Your task to perform on an android device: Clear the shopping cart on newegg.com. Image 0: 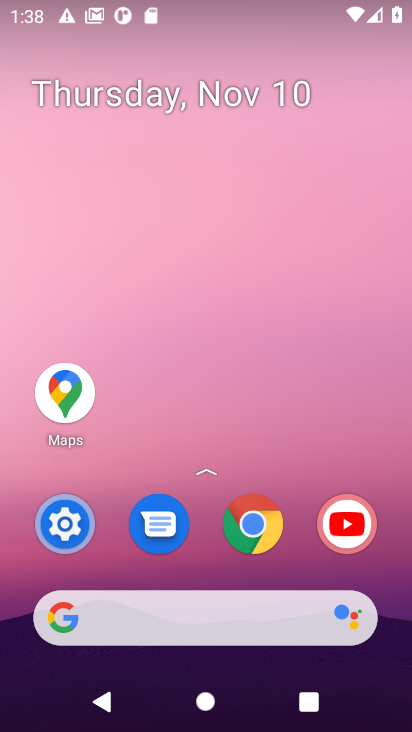
Step 0: click (295, 529)
Your task to perform on an android device: Clear the shopping cart on newegg.com. Image 1: 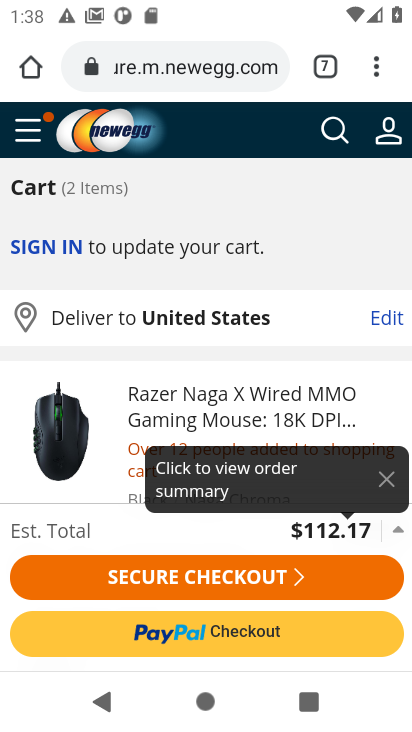
Step 1: drag from (119, 467) to (164, 225)
Your task to perform on an android device: Clear the shopping cart on newegg.com. Image 2: 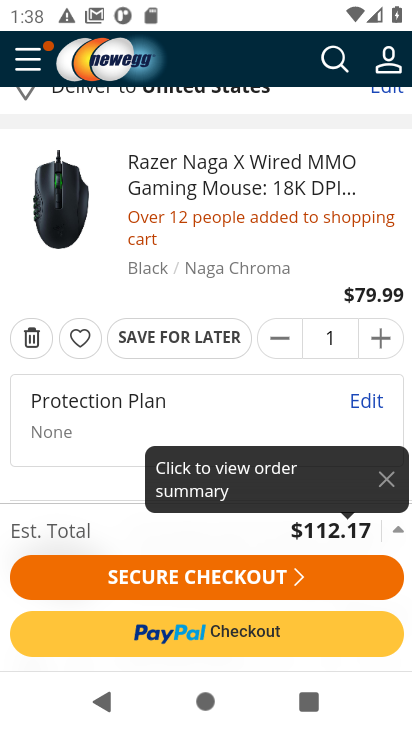
Step 2: click (30, 342)
Your task to perform on an android device: Clear the shopping cart on newegg.com. Image 3: 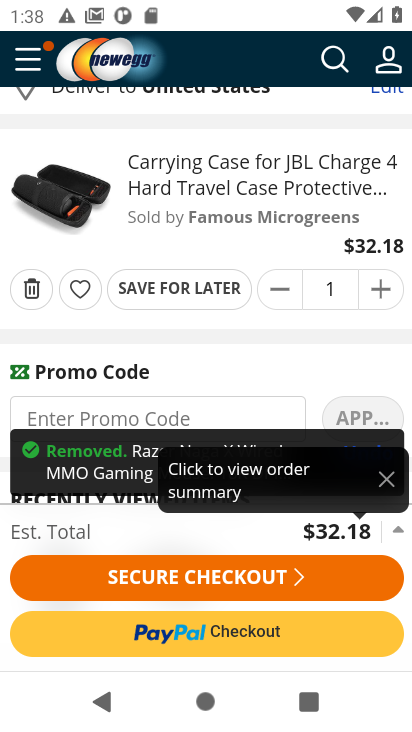
Step 3: click (30, 297)
Your task to perform on an android device: Clear the shopping cart on newegg.com. Image 4: 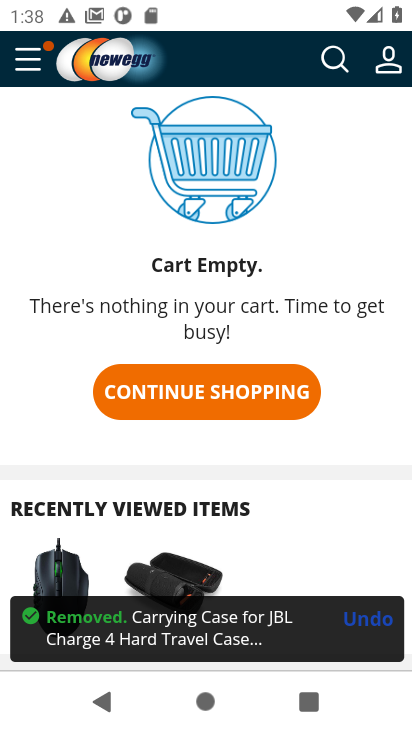
Step 4: task complete